Your task to perform on an android device: Open calendar and show me the fourth week of next month Image 0: 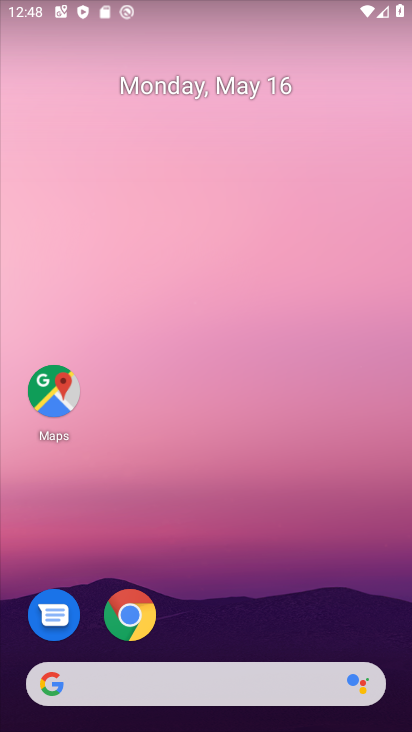
Step 0: click (287, 690)
Your task to perform on an android device: Open calendar and show me the fourth week of next month Image 1: 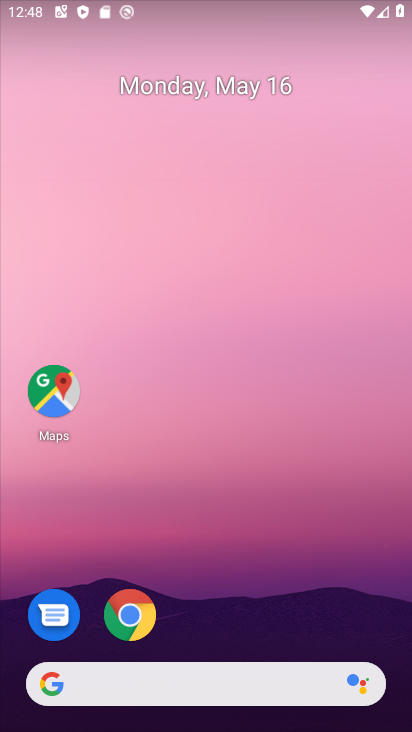
Step 1: click (287, 690)
Your task to perform on an android device: Open calendar and show me the fourth week of next month Image 2: 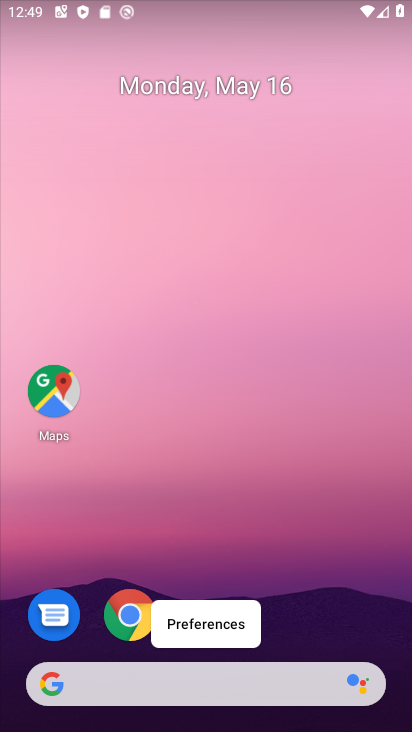
Step 2: drag from (294, 611) to (308, 250)
Your task to perform on an android device: Open calendar and show me the fourth week of next month Image 3: 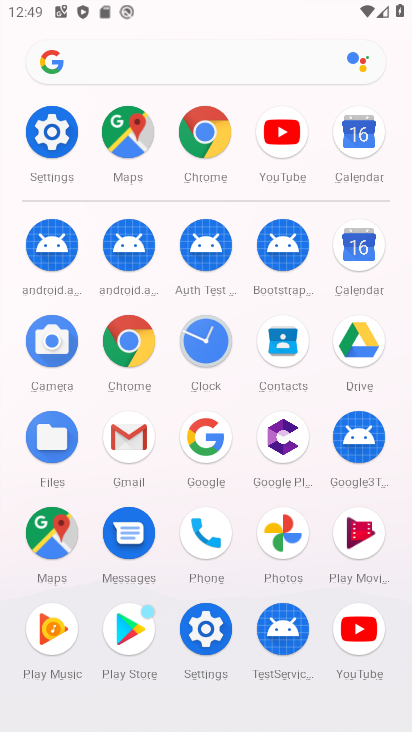
Step 3: click (372, 249)
Your task to perform on an android device: Open calendar and show me the fourth week of next month Image 4: 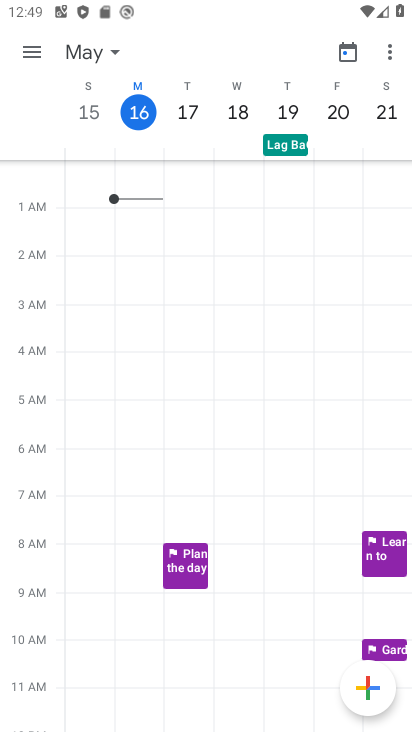
Step 4: click (360, 291)
Your task to perform on an android device: Open calendar and show me the fourth week of next month Image 5: 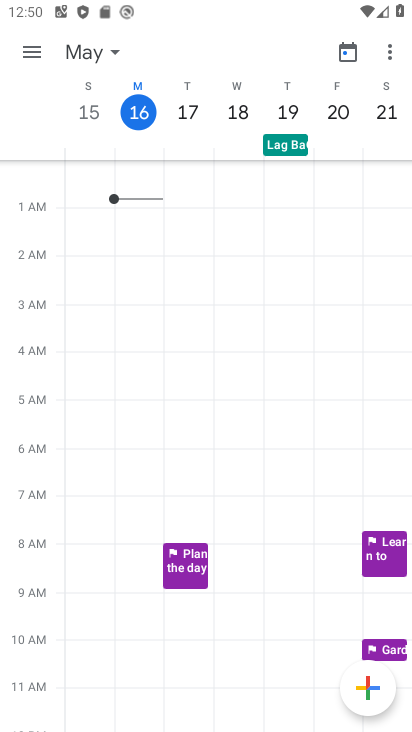
Step 5: click (113, 45)
Your task to perform on an android device: Open calendar and show me the fourth week of next month Image 6: 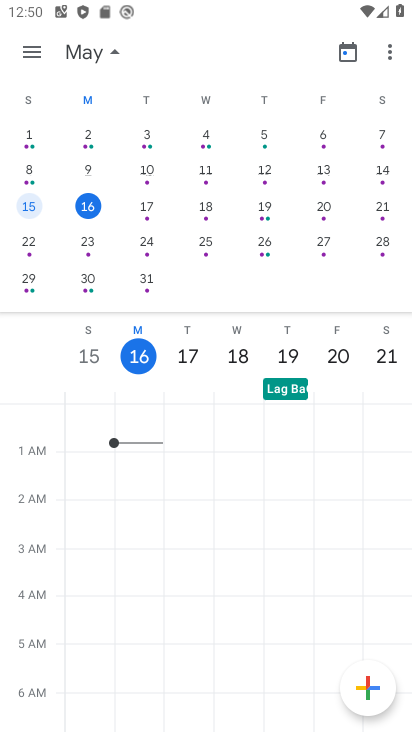
Step 6: drag from (379, 219) to (4, 206)
Your task to perform on an android device: Open calendar and show me the fourth week of next month Image 7: 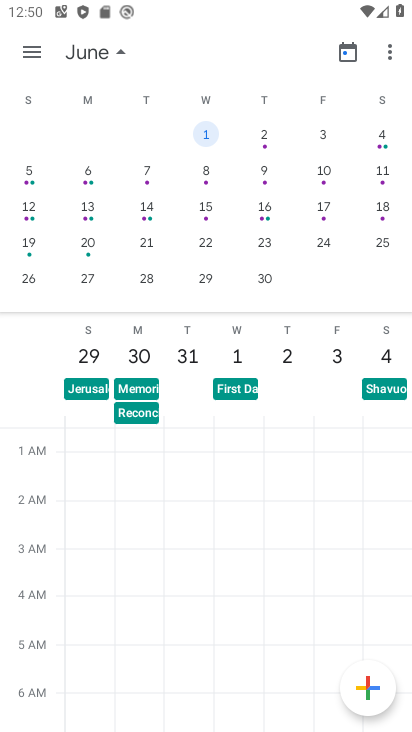
Step 7: click (200, 242)
Your task to perform on an android device: Open calendar and show me the fourth week of next month Image 8: 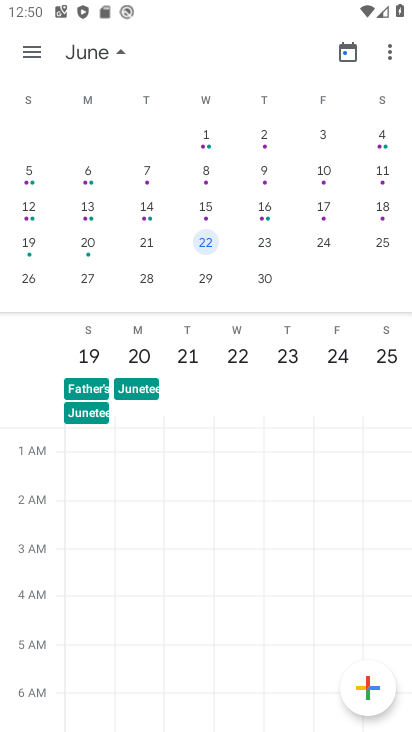
Step 8: task complete